Your task to perform on an android device: toggle airplane mode Image 0: 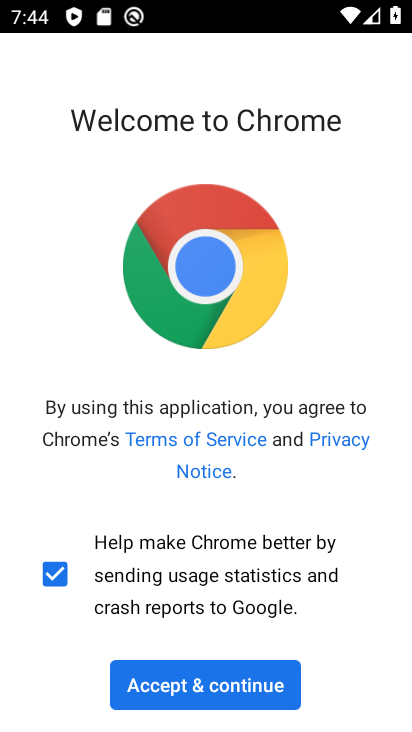
Step 0: press back button
Your task to perform on an android device: toggle airplane mode Image 1: 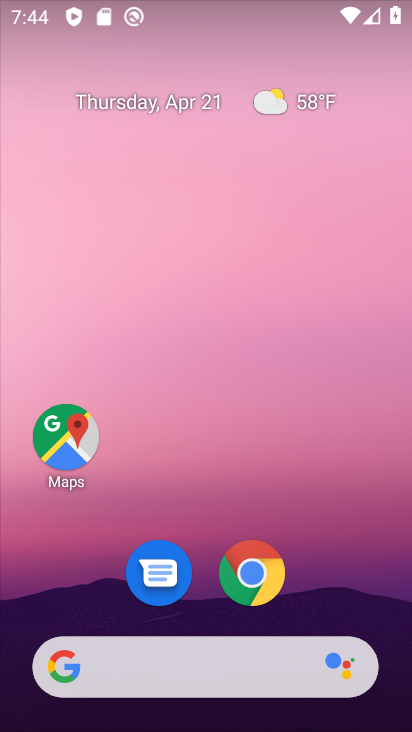
Step 1: drag from (190, 628) to (190, 174)
Your task to perform on an android device: toggle airplane mode Image 2: 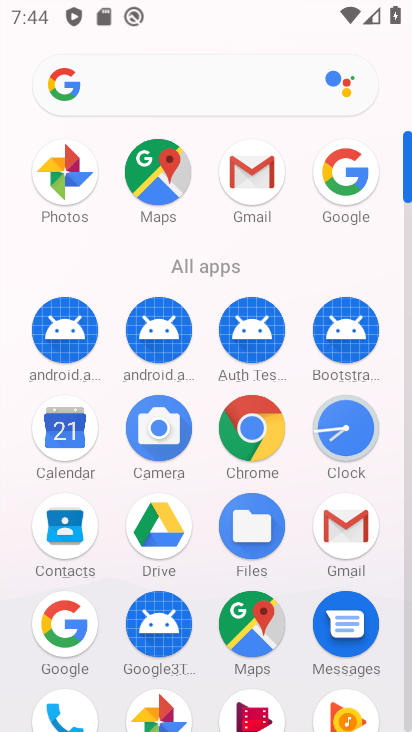
Step 2: drag from (127, 459) to (128, 182)
Your task to perform on an android device: toggle airplane mode Image 3: 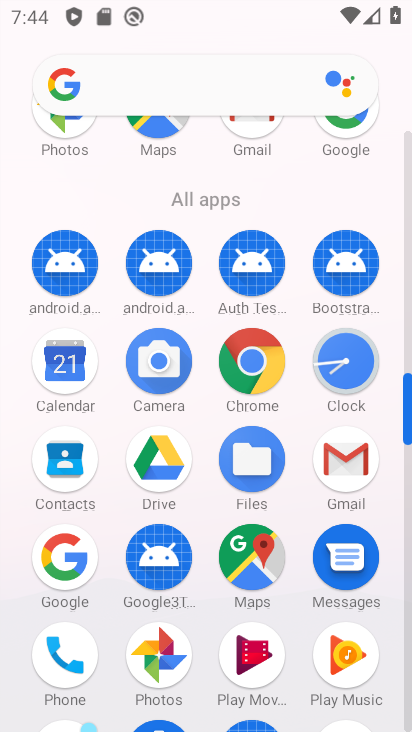
Step 3: drag from (119, 711) to (119, 385)
Your task to perform on an android device: toggle airplane mode Image 4: 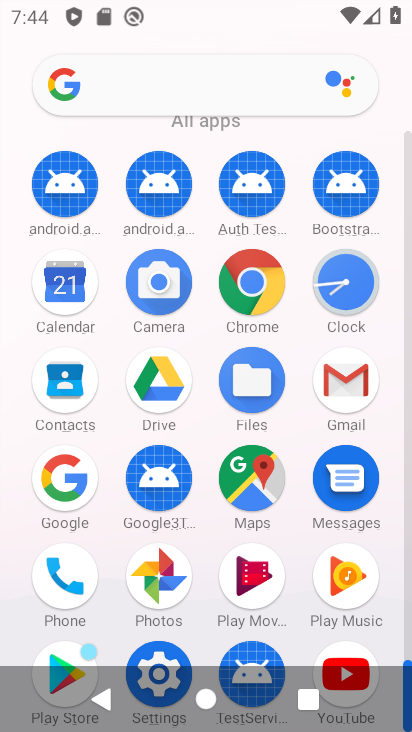
Step 4: click (168, 652)
Your task to perform on an android device: toggle airplane mode Image 5: 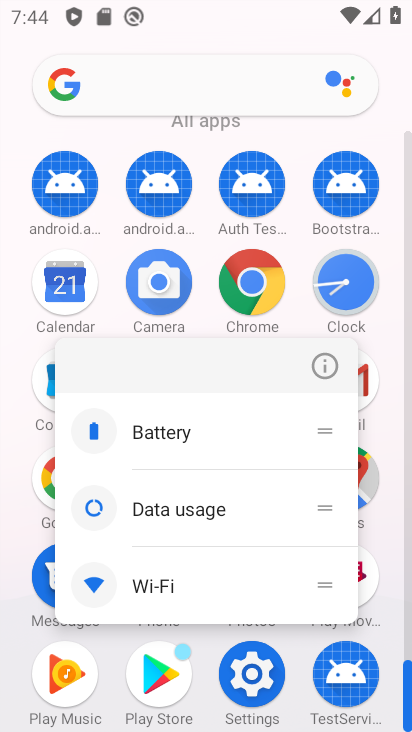
Step 5: click (247, 680)
Your task to perform on an android device: toggle airplane mode Image 6: 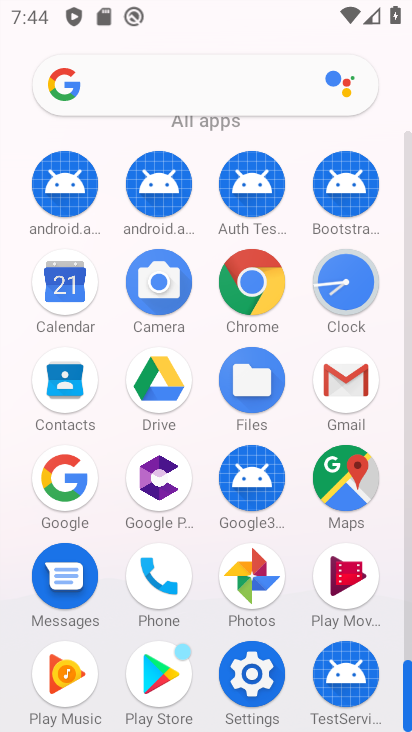
Step 6: click (251, 670)
Your task to perform on an android device: toggle airplane mode Image 7: 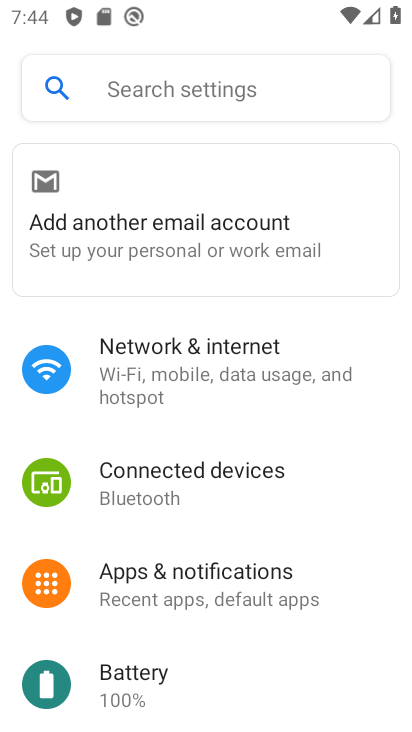
Step 7: drag from (232, 697) to (218, 344)
Your task to perform on an android device: toggle airplane mode Image 8: 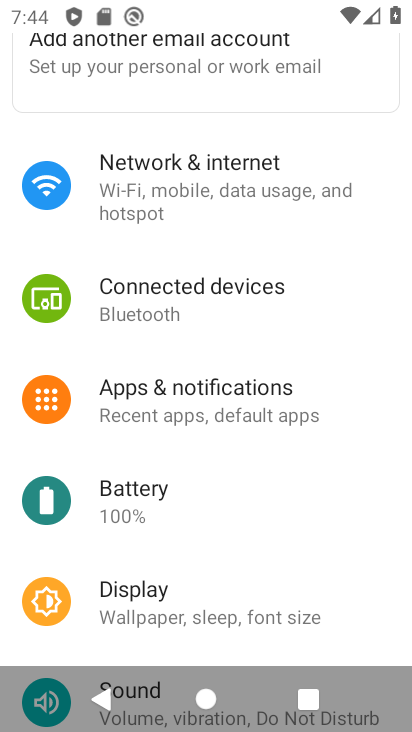
Step 8: drag from (202, 603) to (192, 327)
Your task to perform on an android device: toggle airplane mode Image 9: 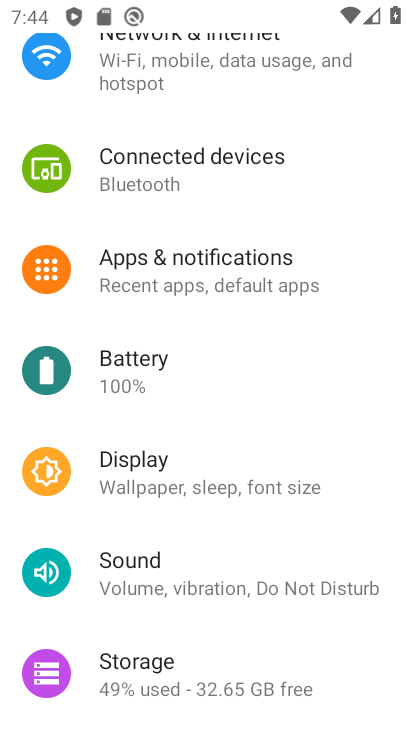
Step 9: drag from (205, 154) to (211, 569)
Your task to perform on an android device: toggle airplane mode Image 10: 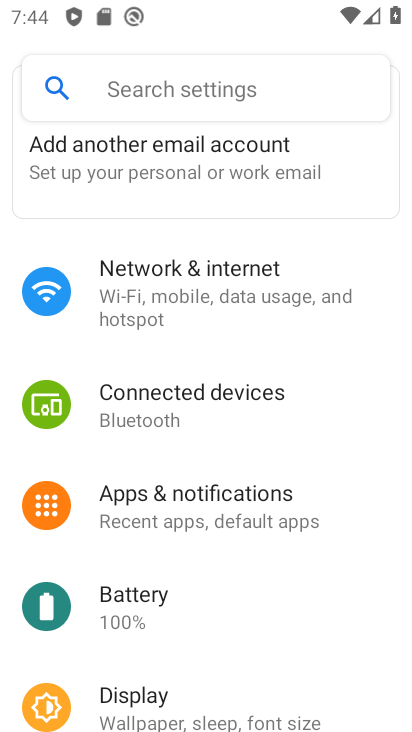
Step 10: click (181, 288)
Your task to perform on an android device: toggle airplane mode Image 11: 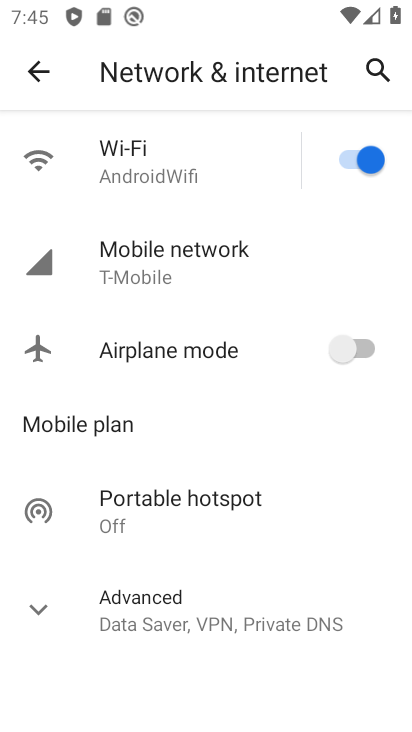
Step 11: click (368, 341)
Your task to perform on an android device: toggle airplane mode Image 12: 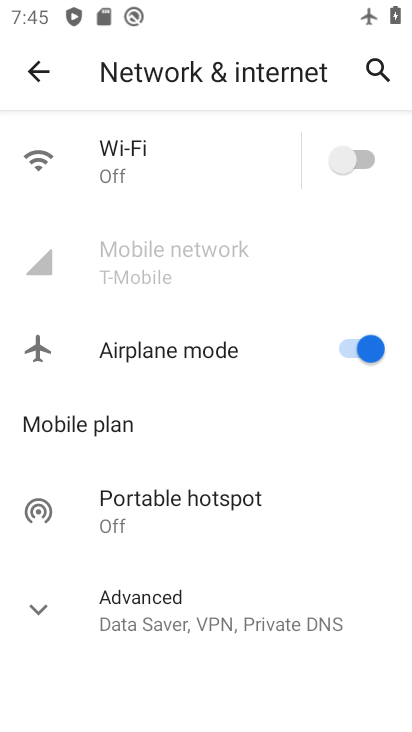
Step 12: task complete